Your task to perform on an android device: Search for pizza restaurants on Maps Image 0: 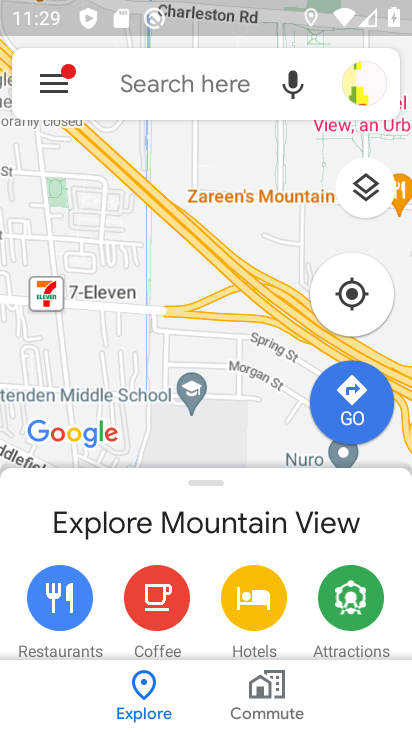
Step 0: click (208, 77)
Your task to perform on an android device: Search for pizza restaurants on Maps Image 1: 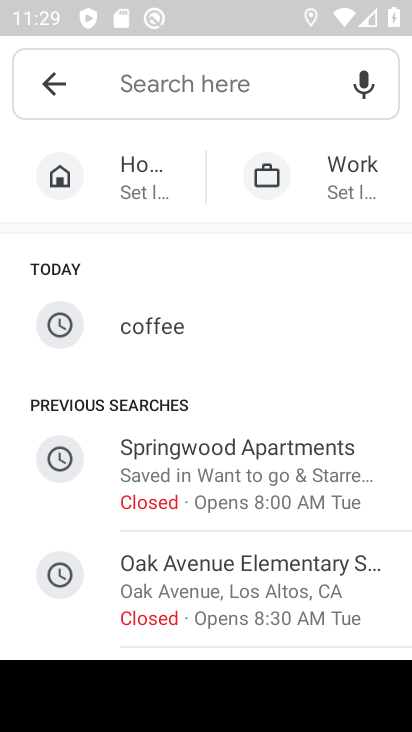
Step 1: type "pizza restaurant"
Your task to perform on an android device: Search for pizza restaurants on Maps Image 2: 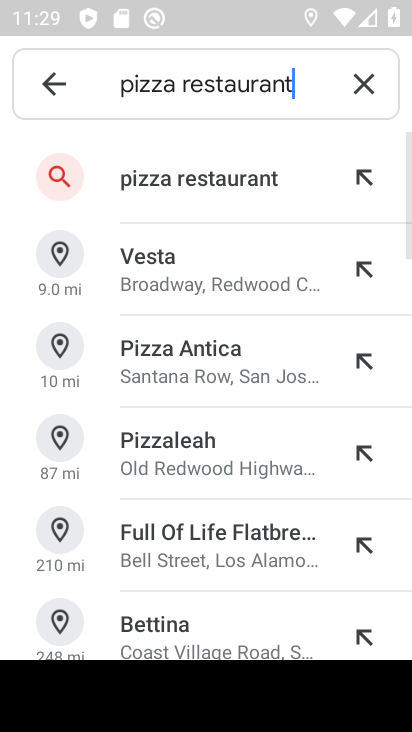
Step 2: click (217, 193)
Your task to perform on an android device: Search for pizza restaurants on Maps Image 3: 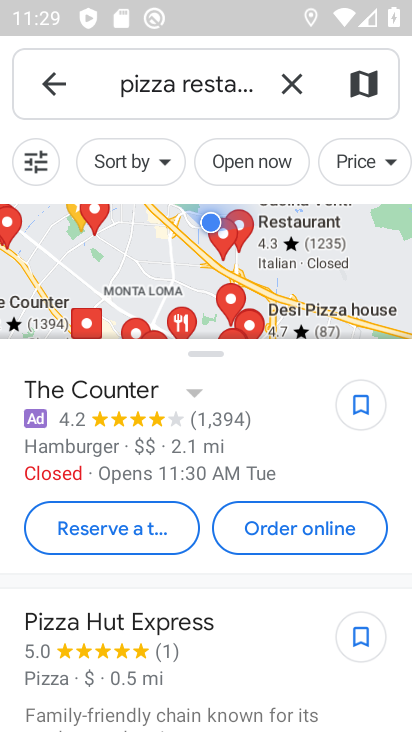
Step 3: task complete